Your task to perform on an android device: manage bookmarks in the chrome app Image 0: 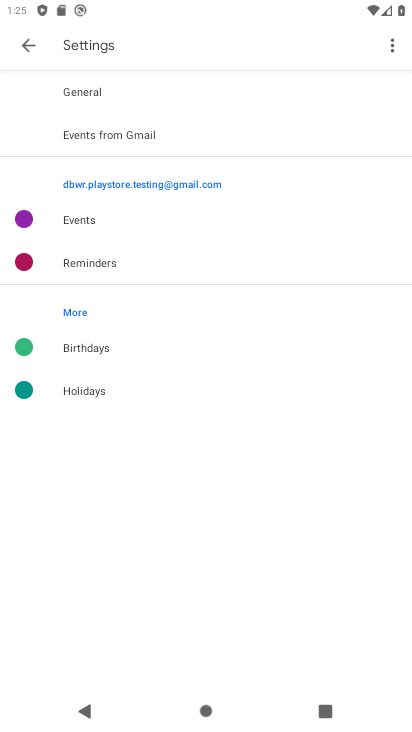
Step 0: press home button
Your task to perform on an android device: manage bookmarks in the chrome app Image 1: 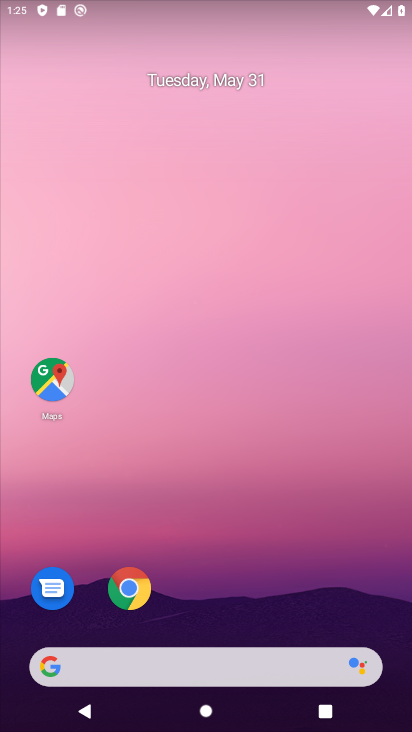
Step 1: drag from (362, 596) to (351, 165)
Your task to perform on an android device: manage bookmarks in the chrome app Image 2: 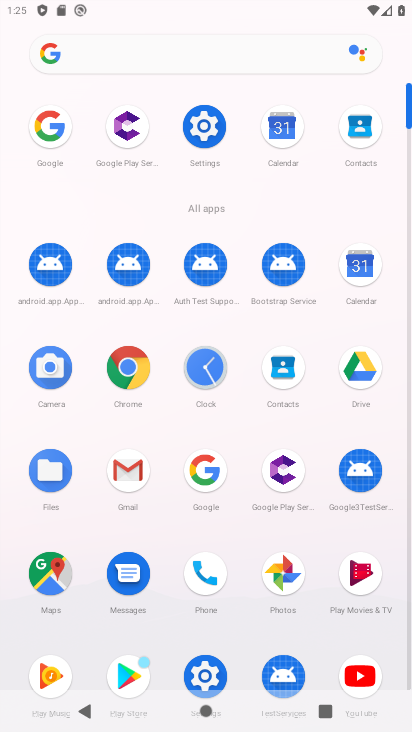
Step 2: click (141, 368)
Your task to perform on an android device: manage bookmarks in the chrome app Image 3: 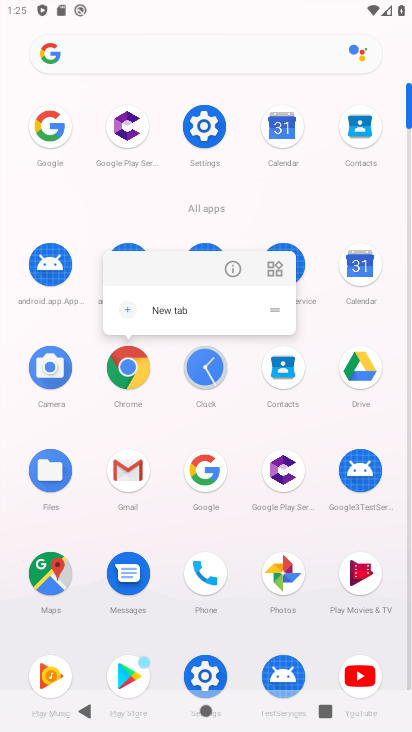
Step 3: click (141, 368)
Your task to perform on an android device: manage bookmarks in the chrome app Image 4: 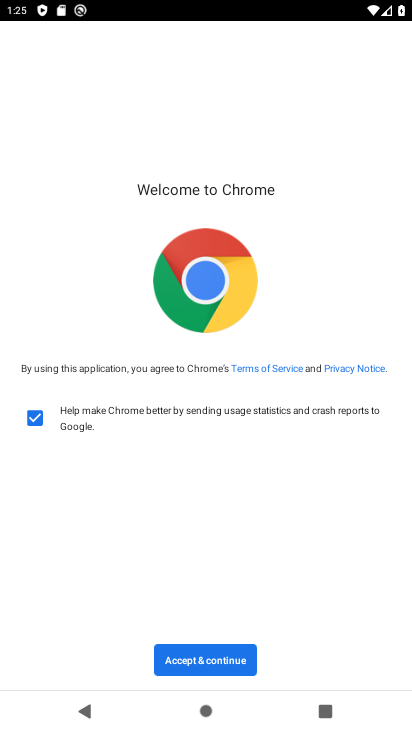
Step 4: click (183, 658)
Your task to perform on an android device: manage bookmarks in the chrome app Image 5: 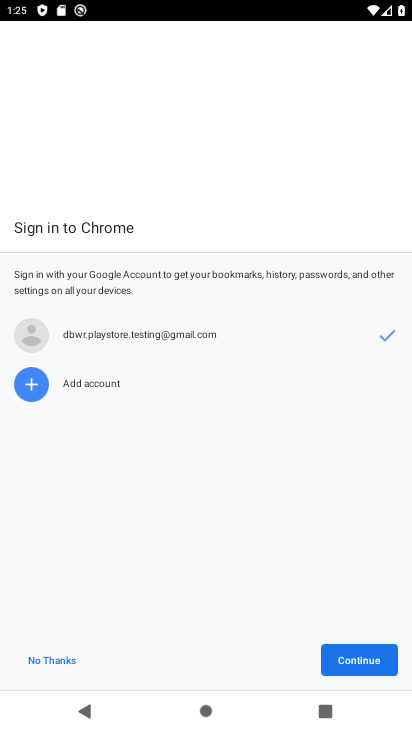
Step 5: click (345, 659)
Your task to perform on an android device: manage bookmarks in the chrome app Image 6: 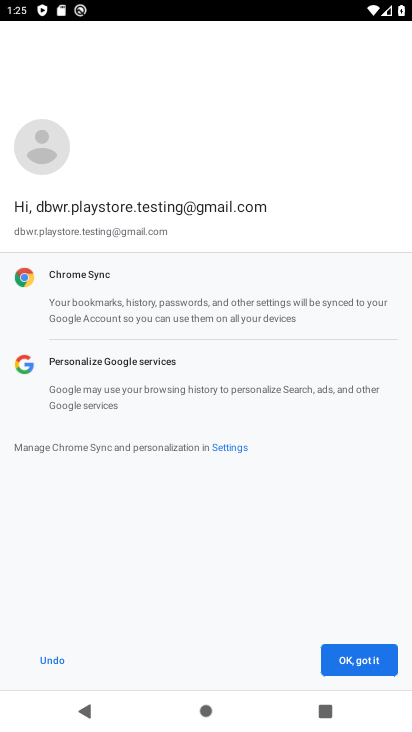
Step 6: click (345, 659)
Your task to perform on an android device: manage bookmarks in the chrome app Image 7: 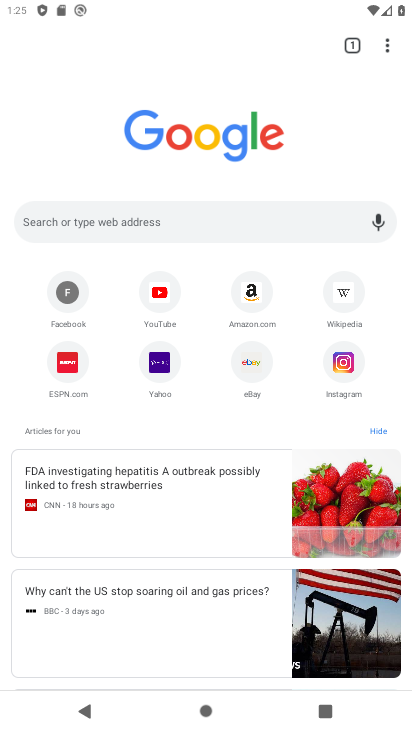
Step 7: click (389, 47)
Your task to perform on an android device: manage bookmarks in the chrome app Image 8: 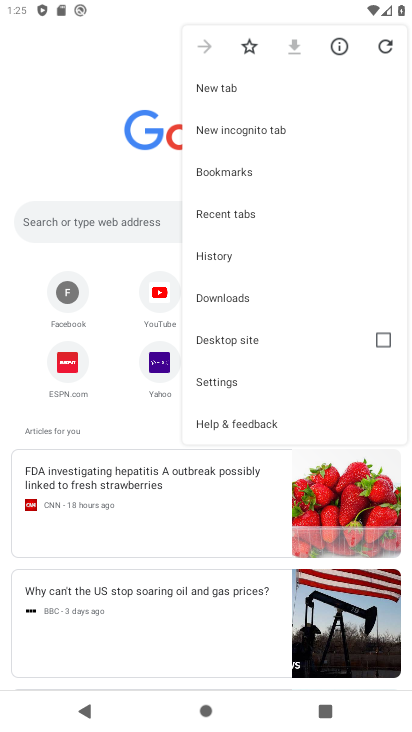
Step 8: click (260, 171)
Your task to perform on an android device: manage bookmarks in the chrome app Image 9: 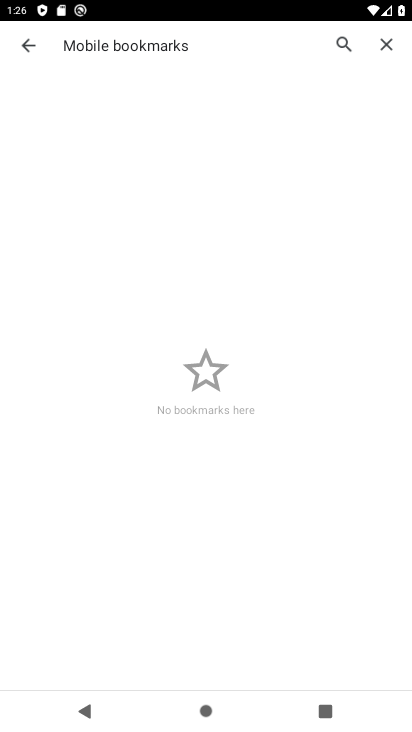
Step 9: task complete